Your task to perform on an android device: Open Google Image 0: 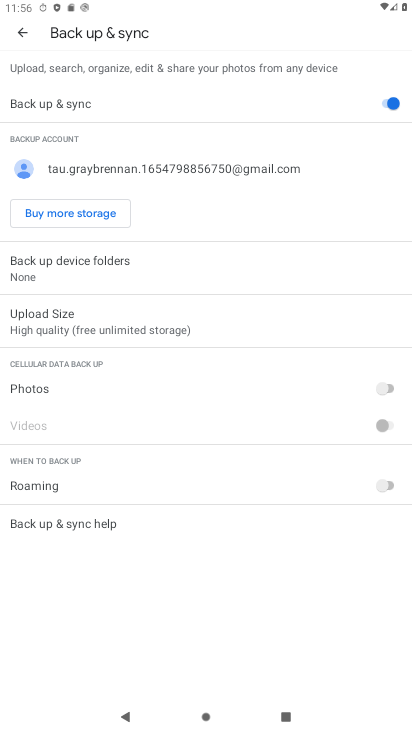
Step 0: press home button
Your task to perform on an android device: Open Google Image 1: 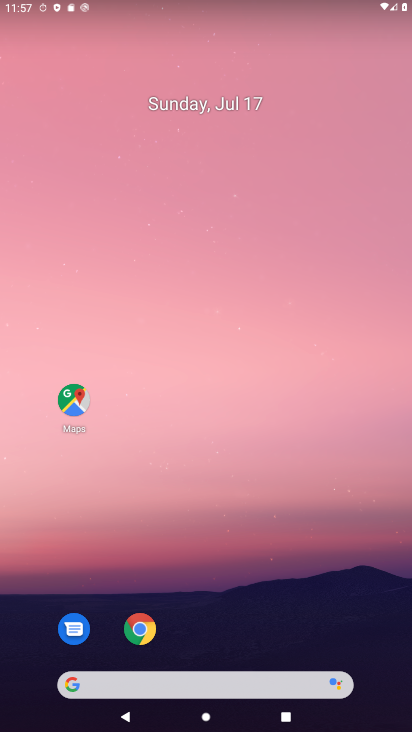
Step 1: drag from (208, 642) to (200, 15)
Your task to perform on an android device: Open Google Image 2: 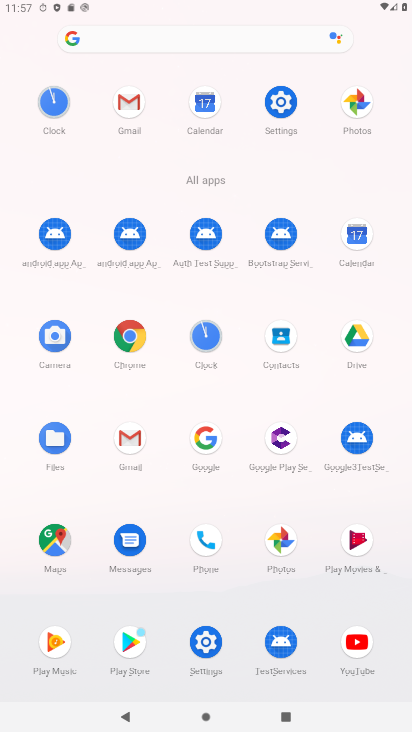
Step 2: click (204, 432)
Your task to perform on an android device: Open Google Image 3: 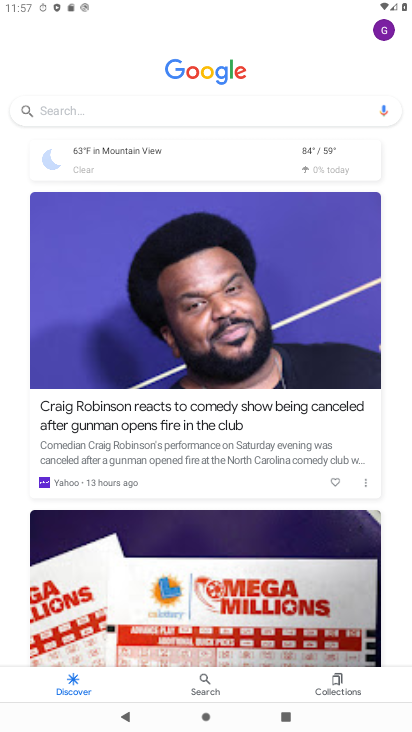
Step 3: click (200, 685)
Your task to perform on an android device: Open Google Image 4: 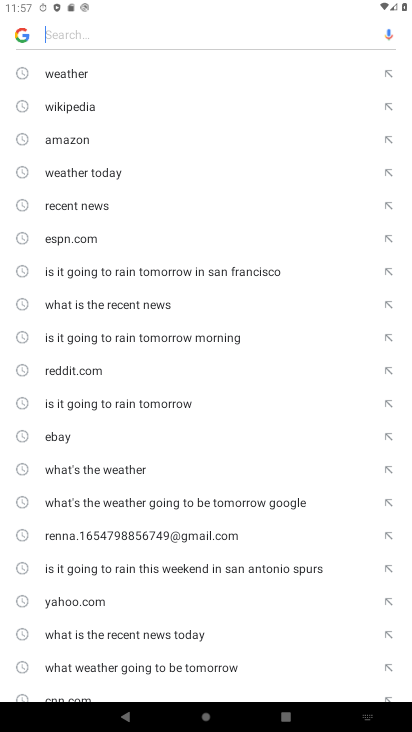
Step 4: press back button
Your task to perform on an android device: Open Google Image 5: 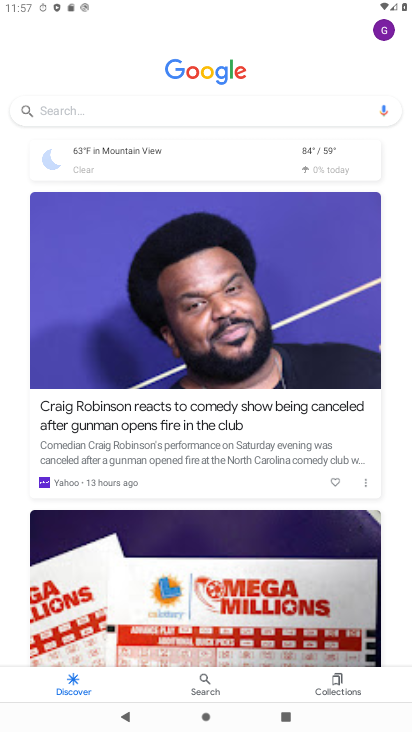
Step 5: click (340, 685)
Your task to perform on an android device: Open Google Image 6: 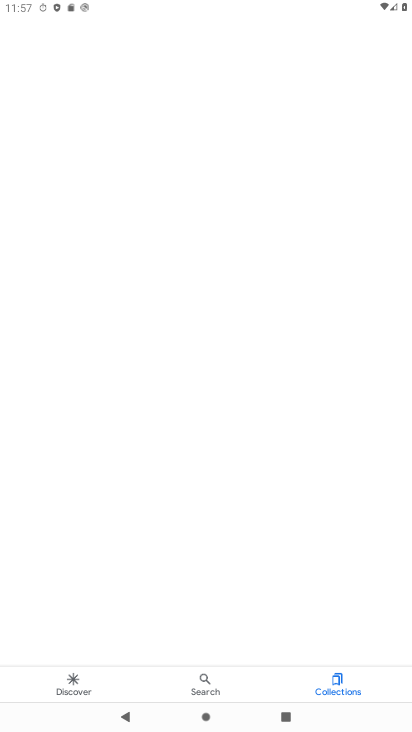
Step 6: task complete